Your task to perform on an android device: allow cookies in the chrome app Image 0: 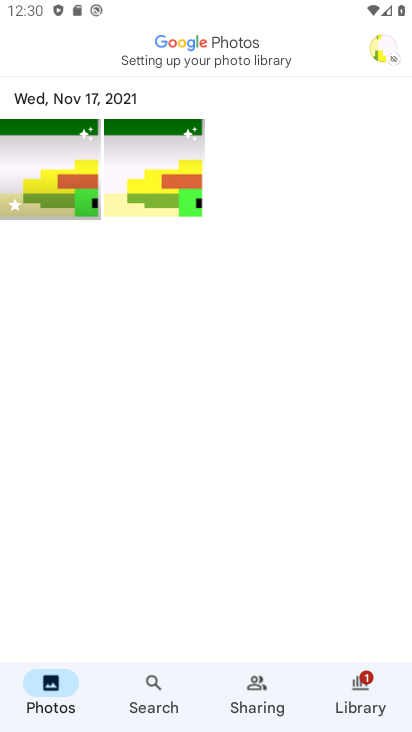
Step 0: press home button
Your task to perform on an android device: allow cookies in the chrome app Image 1: 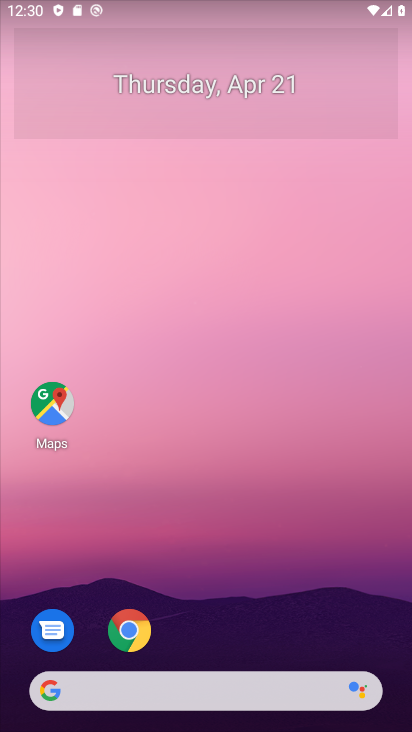
Step 1: click (125, 642)
Your task to perform on an android device: allow cookies in the chrome app Image 2: 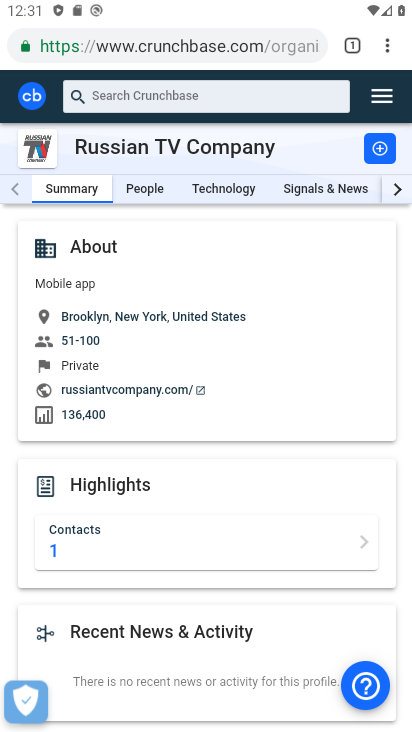
Step 2: click (393, 90)
Your task to perform on an android device: allow cookies in the chrome app Image 3: 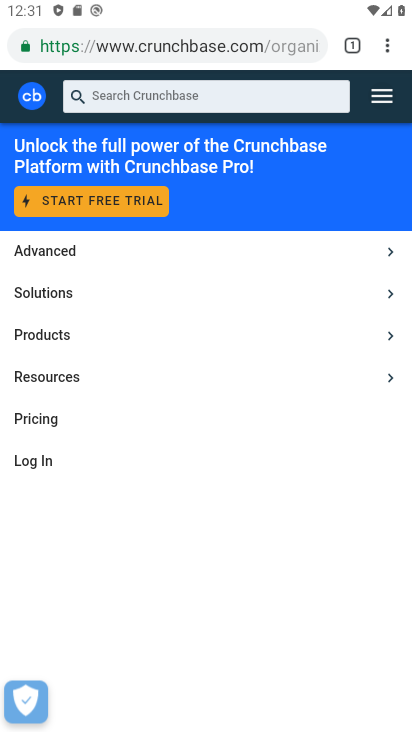
Step 3: click (390, 52)
Your task to perform on an android device: allow cookies in the chrome app Image 4: 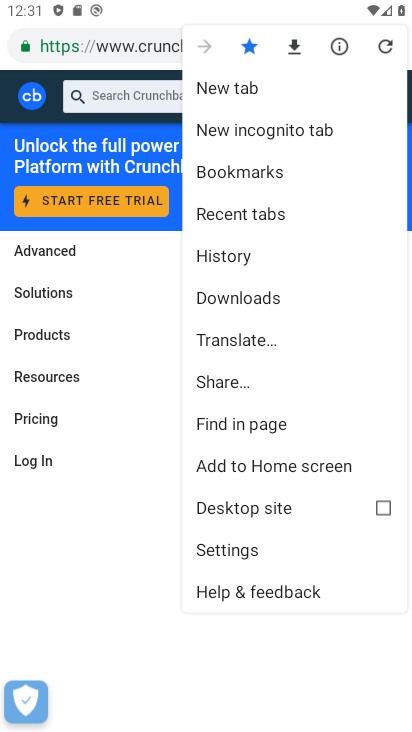
Step 4: click (244, 540)
Your task to perform on an android device: allow cookies in the chrome app Image 5: 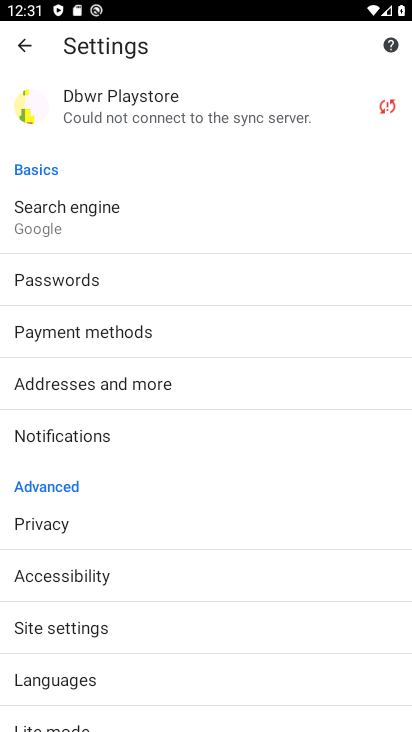
Step 5: click (103, 625)
Your task to perform on an android device: allow cookies in the chrome app Image 6: 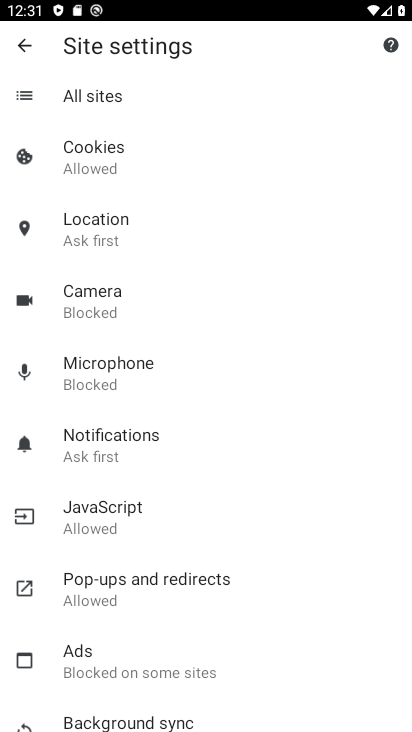
Step 6: task complete